Your task to perform on an android device: Open maps Image 0: 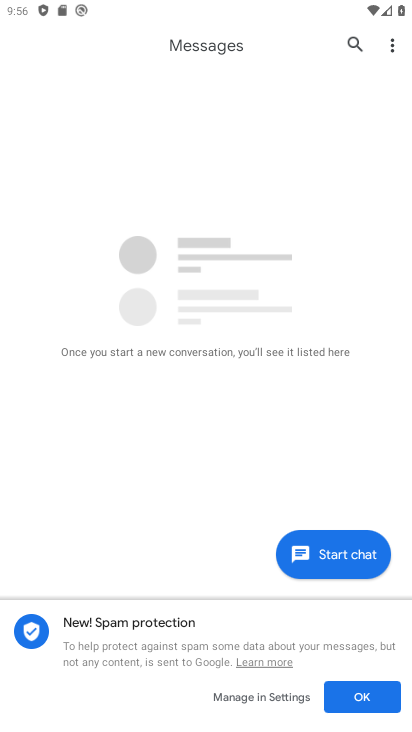
Step 0: press home button
Your task to perform on an android device: Open maps Image 1: 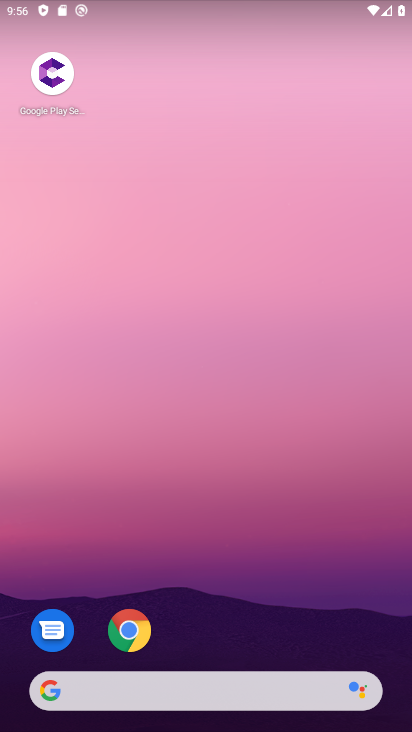
Step 1: drag from (368, 570) to (370, 80)
Your task to perform on an android device: Open maps Image 2: 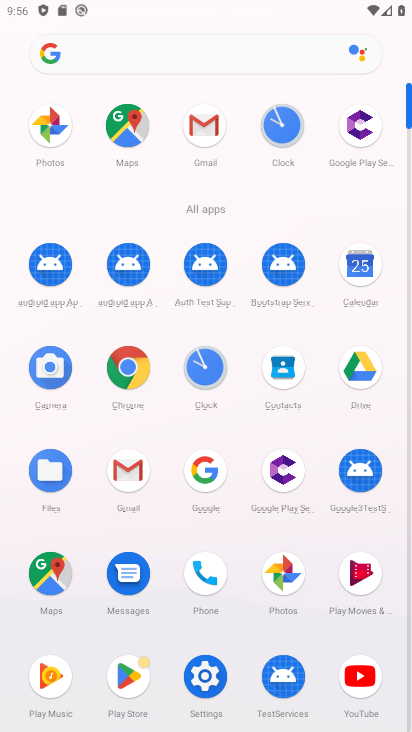
Step 2: click (51, 577)
Your task to perform on an android device: Open maps Image 3: 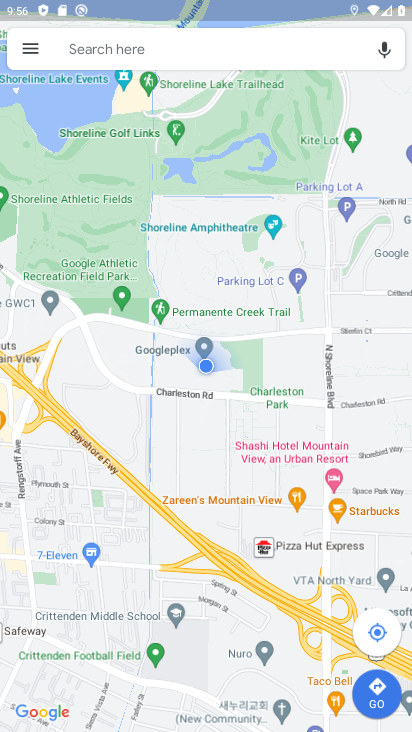
Step 3: task complete